Your task to perform on an android device: Go to Google Image 0: 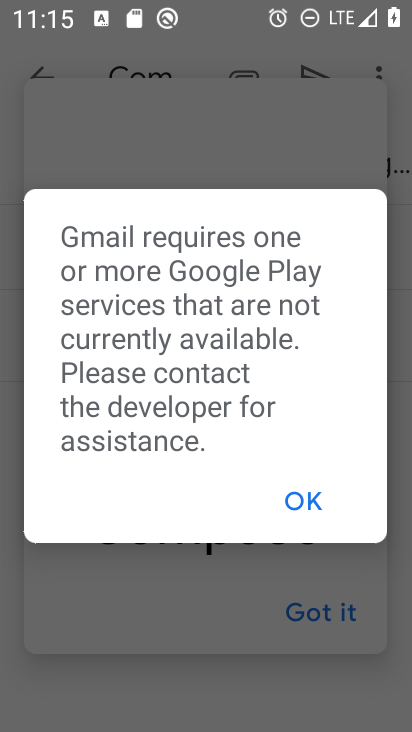
Step 0: press home button
Your task to perform on an android device: Go to Google Image 1: 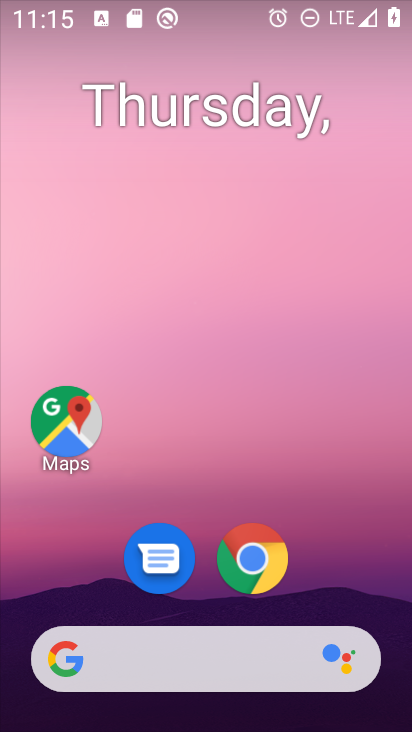
Step 1: click (248, 553)
Your task to perform on an android device: Go to Google Image 2: 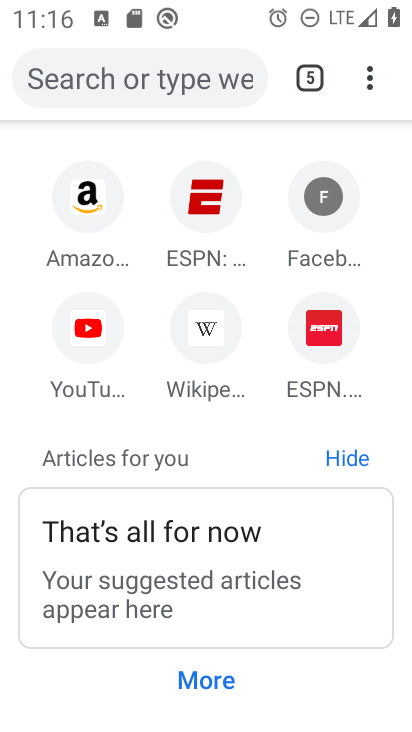
Step 2: task complete